Your task to perform on an android device: How much does the Sony TV cost? Image 0: 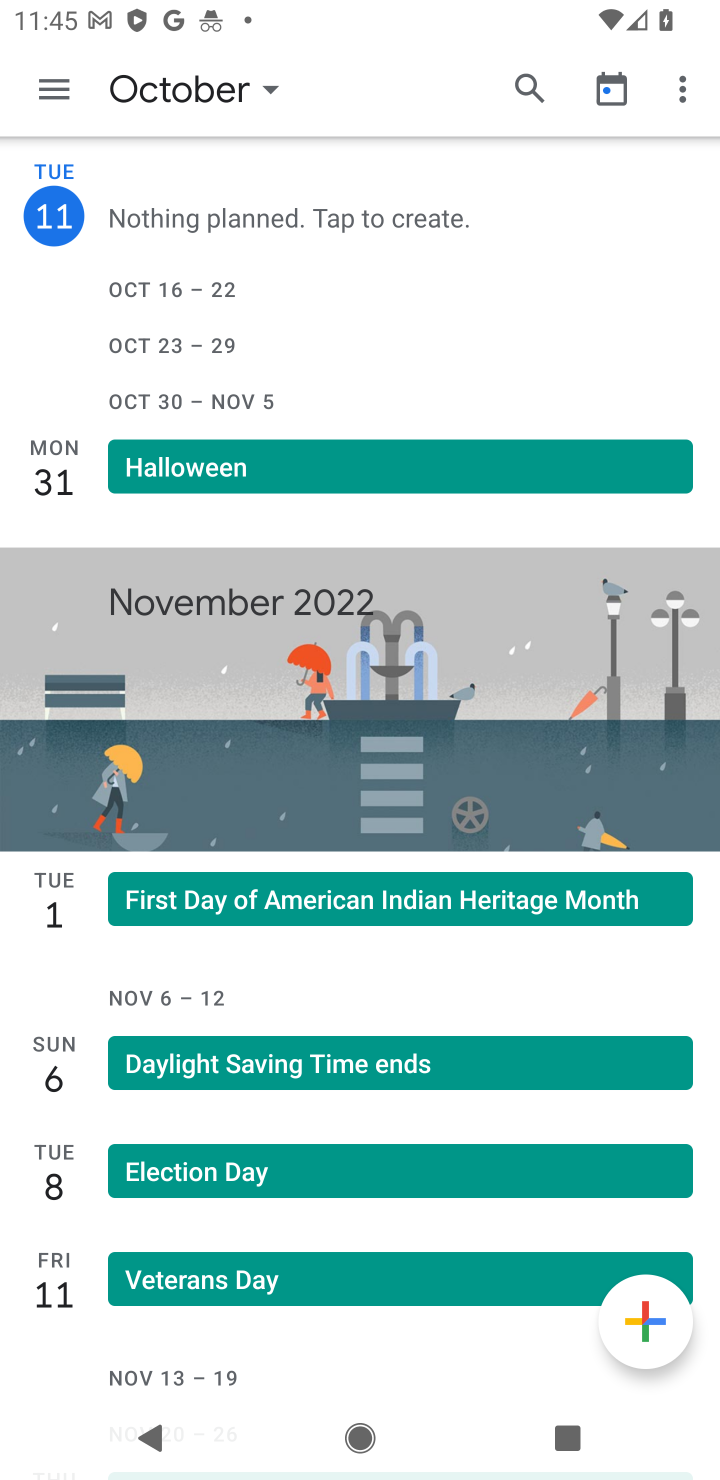
Step 0: press home button
Your task to perform on an android device: How much does the Sony TV cost? Image 1: 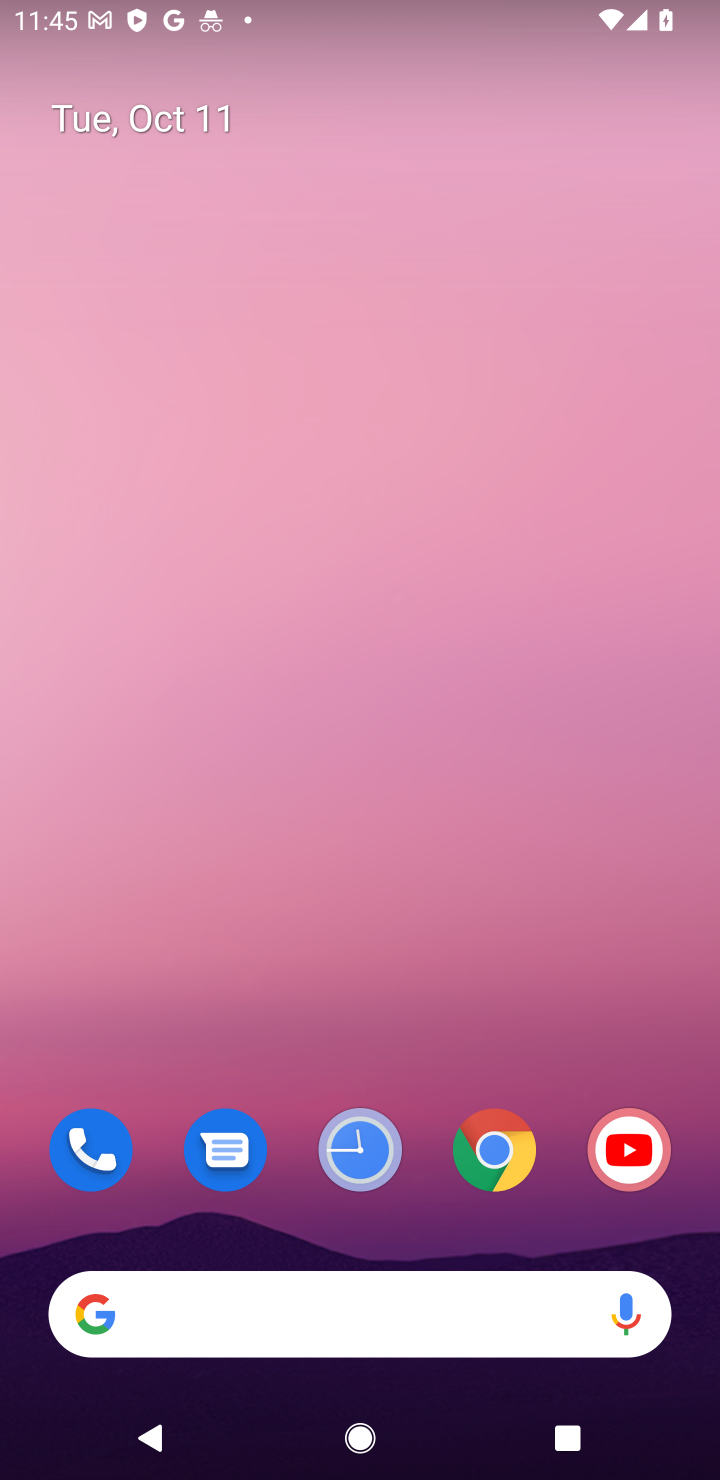
Step 1: click (229, 1321)
Your task to perform on an android device: How much does the Sony TV cost? Image 2: 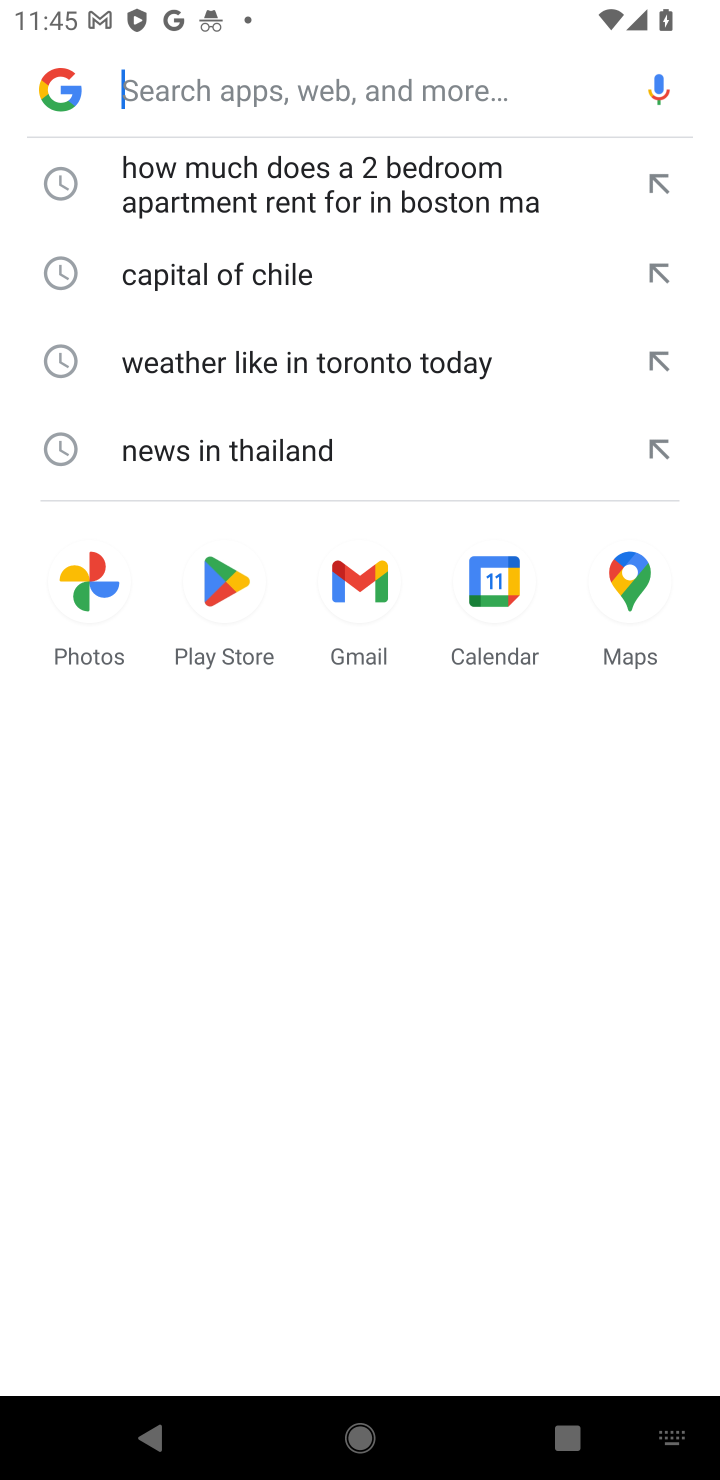
Step 2: type "how much does the sony tv cost?"
Your task to perform on an android device: How much does the Sony TV cost? Image 3: 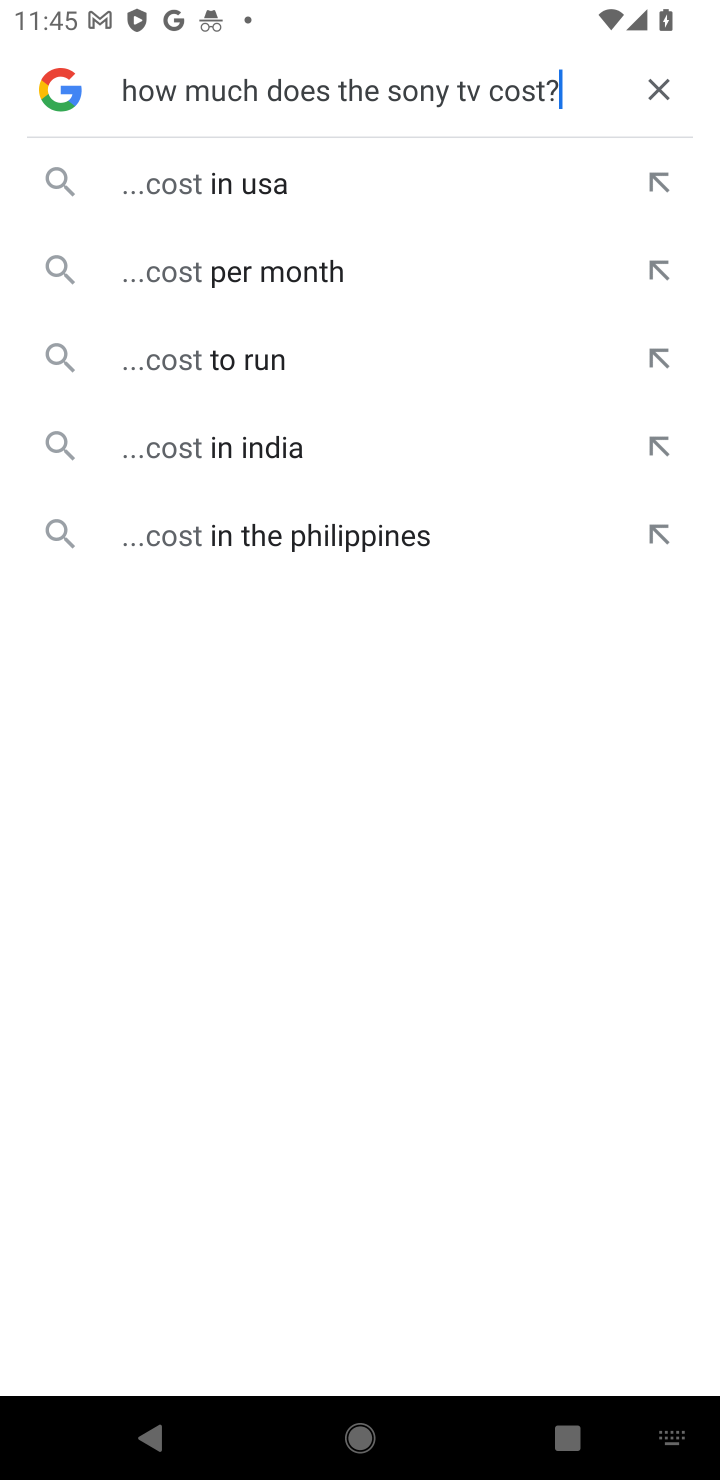
Step 3: click (225, 352)
Your task to perform on an android device: How much does the Sony TV cost? Image 4: 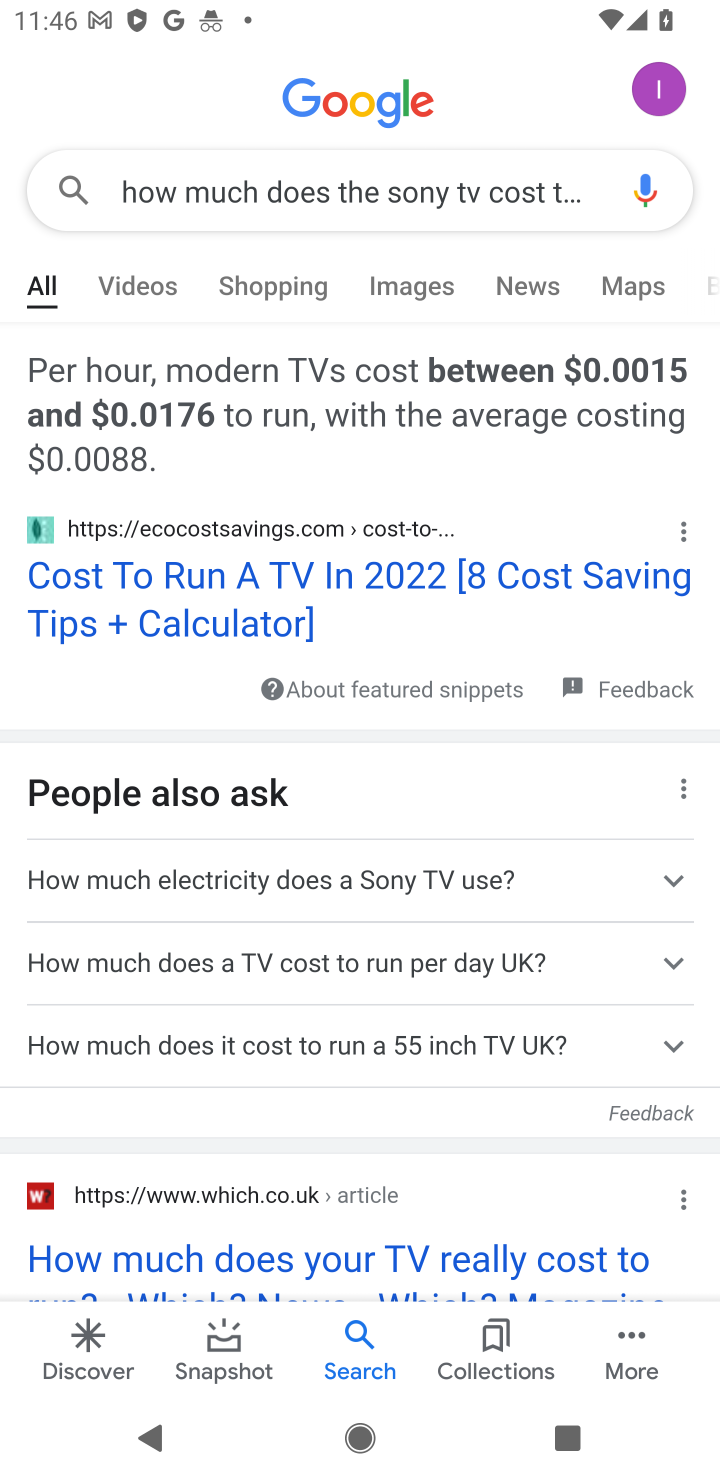
Step 4: click (268, 568)
Your task to perform on an android device: How much does the Sony TV cost? Image 5: 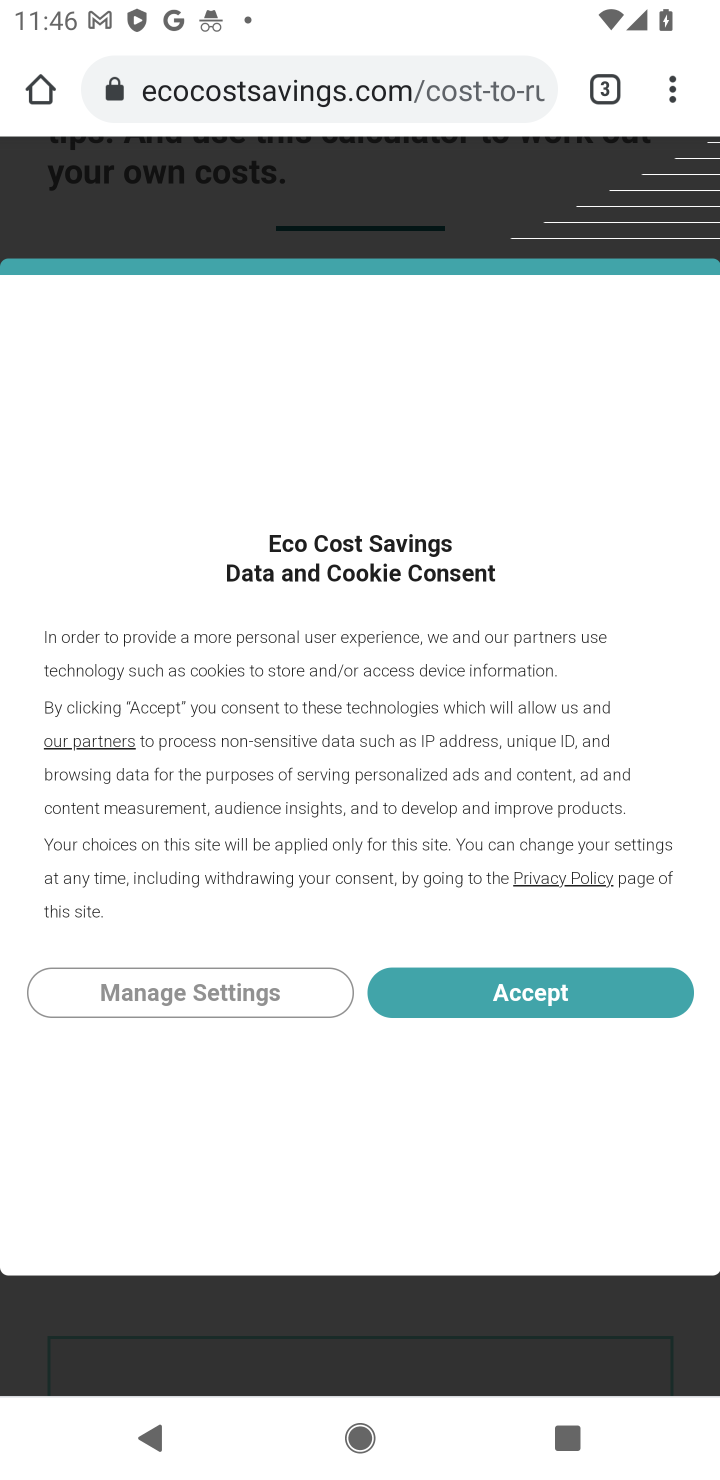
Step 5: click (468, 999)
Your task to perform on an android device: How much does the Sony TV cost? Image 6: 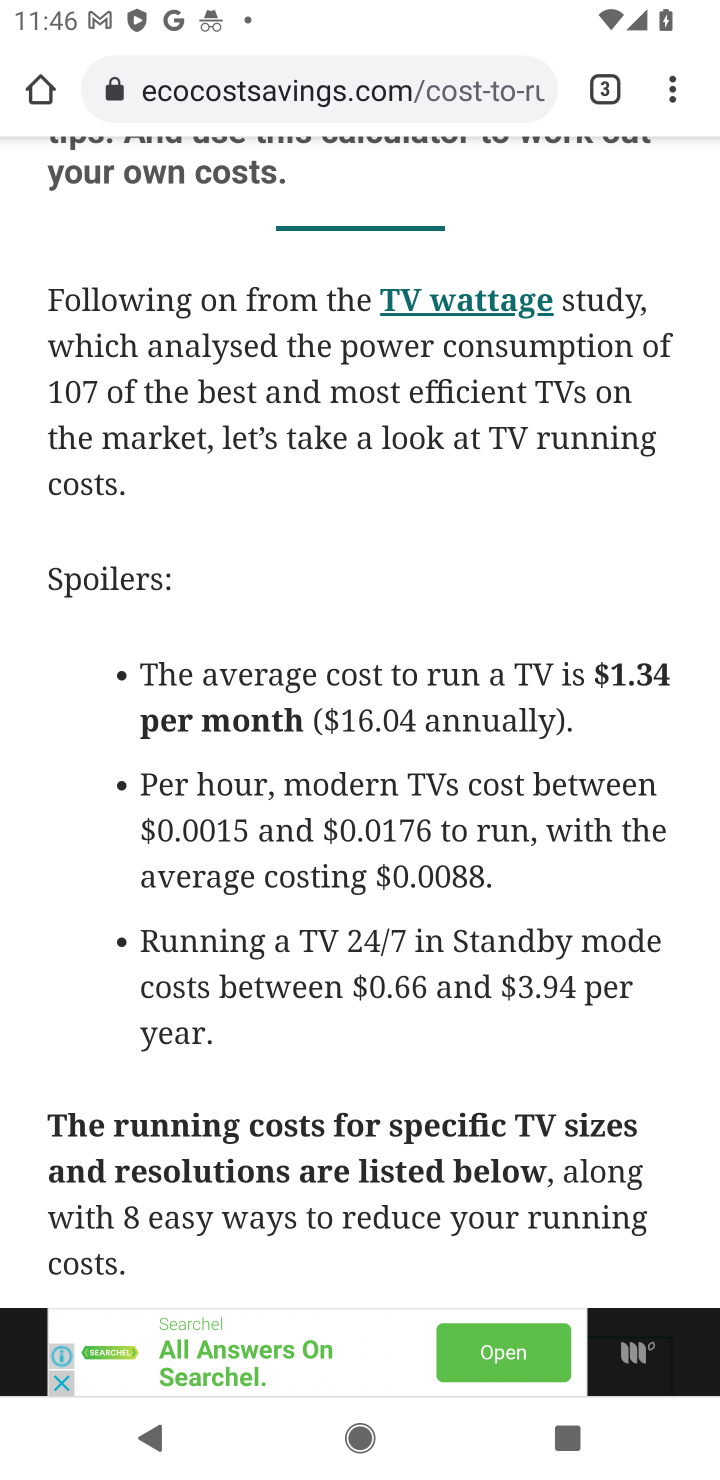
Step 6: task complete